Your task to perform on an android device: Go to internet settings Image 0: 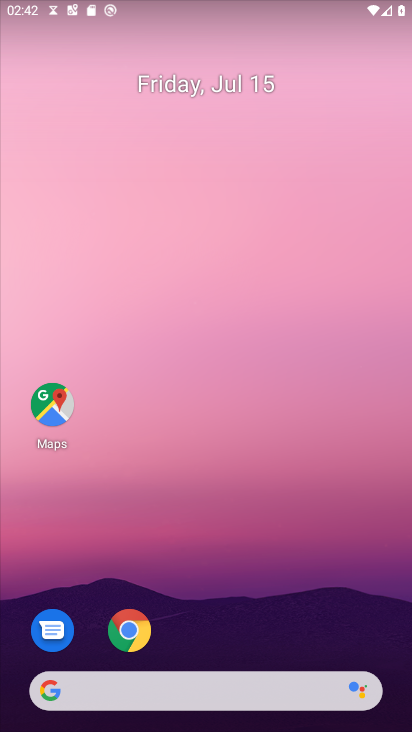
Step 0: drag from (256, 497) to (194, 156)
Your task to perform on an android device: Go to internet settings Image 1: 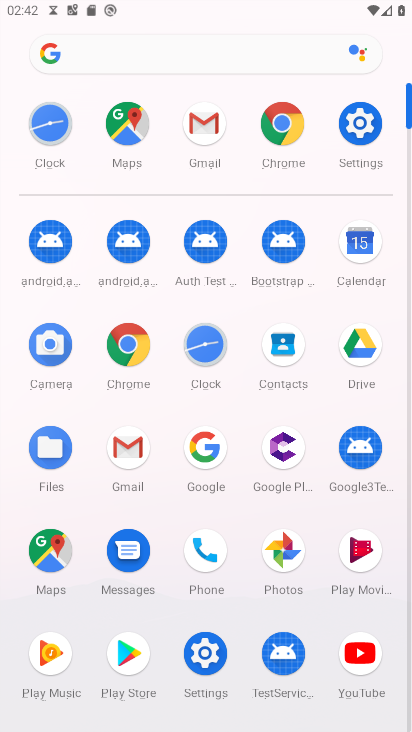
Step 1: click (367, 125)
Your task to perform on an android device: Go to internet settings Image 2: 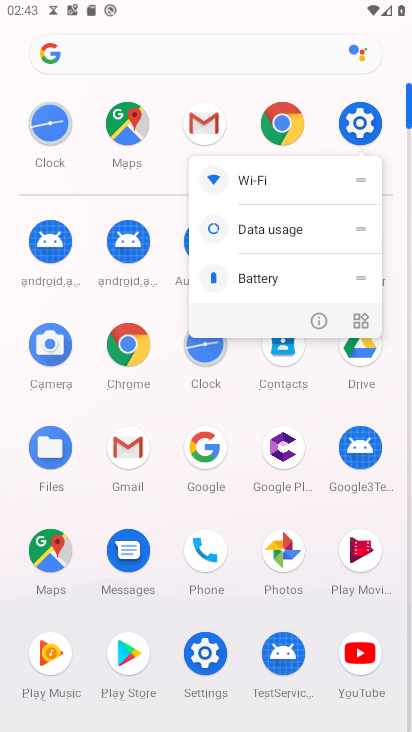
Step 2: click (367, 124)
Your task to perform on an android device: Go to internet settings Image 3: 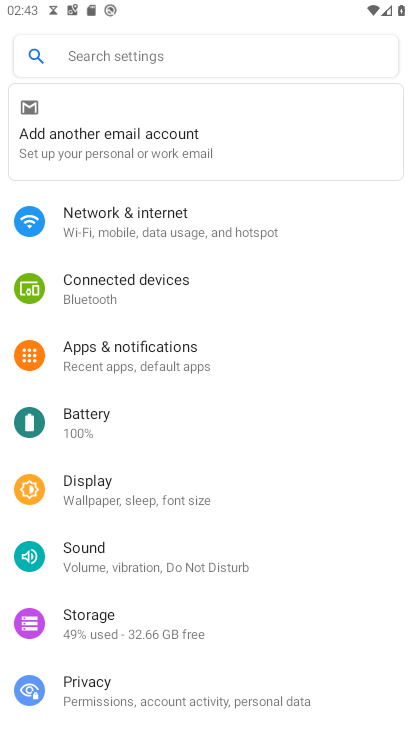
Step 3: click (155, 236)
Your task to perform on an android device: Go to internet settings Image 4: 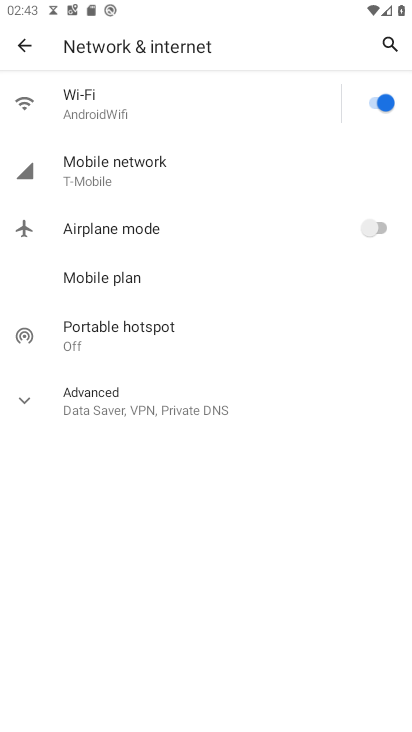
Step 4: task complete